Your task to perform on an android device: Set the phone to "Do not disturb". Image 0: 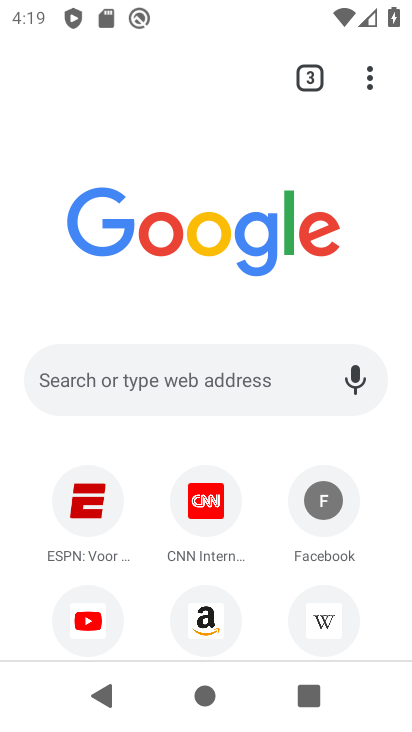
Step 0: press back button
Your task to perform on an android device: Set the phone to "Do not disturb". Image 1: 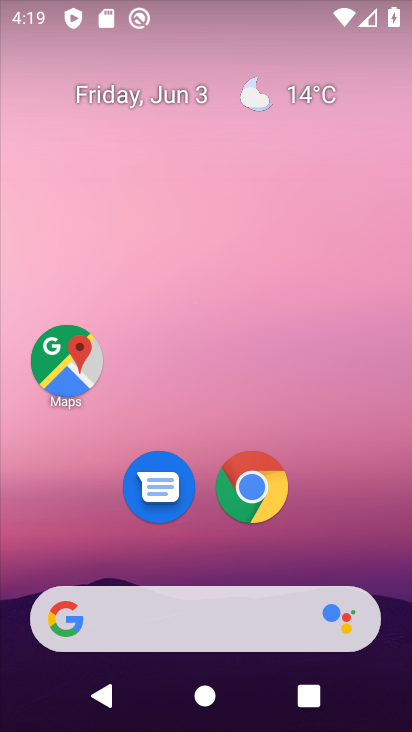
Step 1: drag from (171, 15) to (205, 531)
Your task to perform on an android device: Set the phone to "Do not disturb". Image 2: 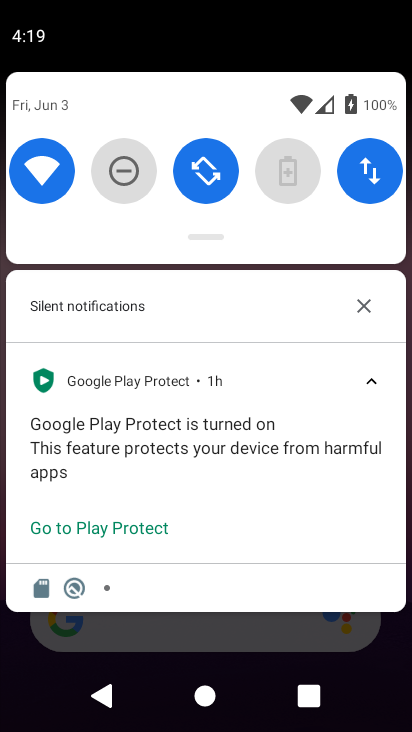
Step 2: click (120, 166)
Your task to perform on an android device: Set the phone to "Do not disturb". Image 3: 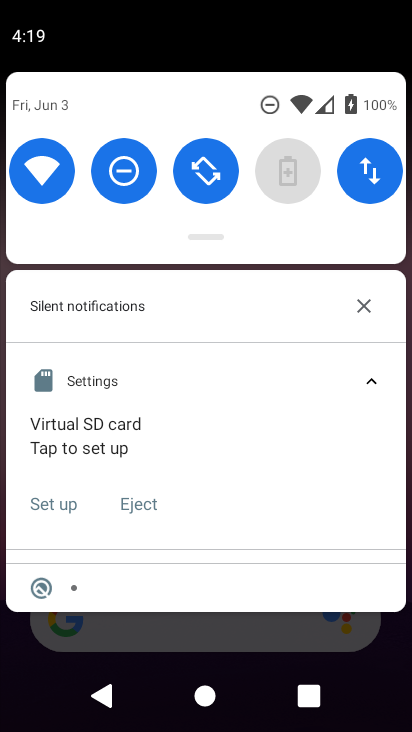
Step 3: task complete